Your task to perform on an android device: Open calendar and show me the first week of next month Image 0: 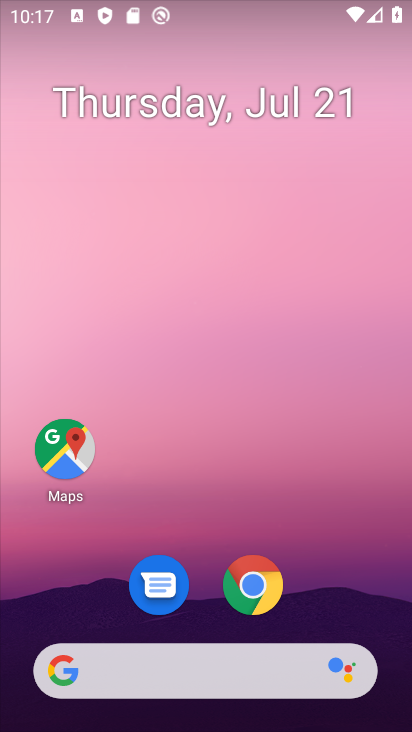
Step 0: drag from (336, 596) to (320, 39)
Your task to perform on an android device: Open calendar and show me the first week of next month Image 1: 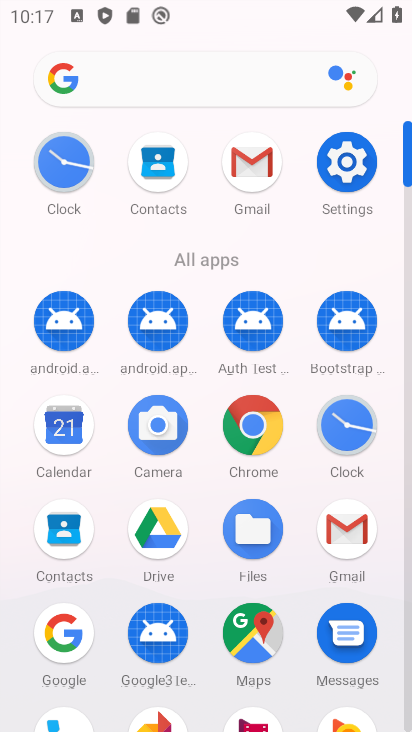
Step 1: click (71, 425)
Your task to perform on an android device: Open calendar and show me the first week of next month Image 2: 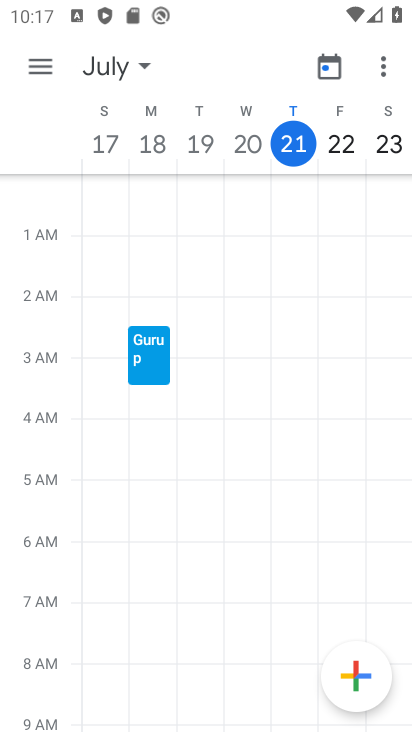
Step 2: task complete